Your task to perform on an android device: See recent photos Image 0: 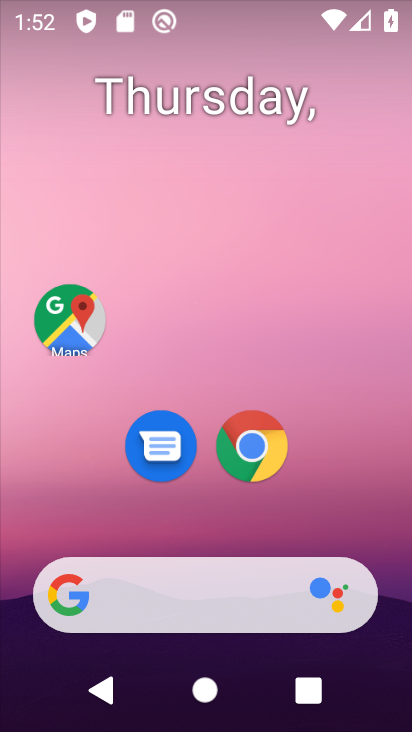
Step 0: drag from (294, 464) to (301, 175)
Your task to perform on an android device: See recent photos Image 1: 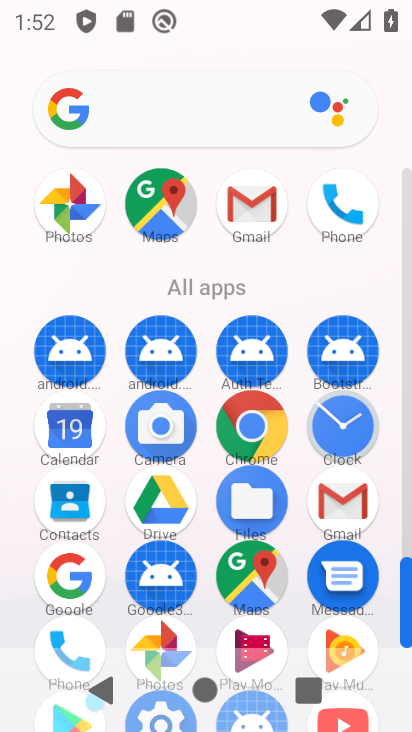
Step 1: click (153, 641)
Your task to perform on an android device: See recent photos Image 2: 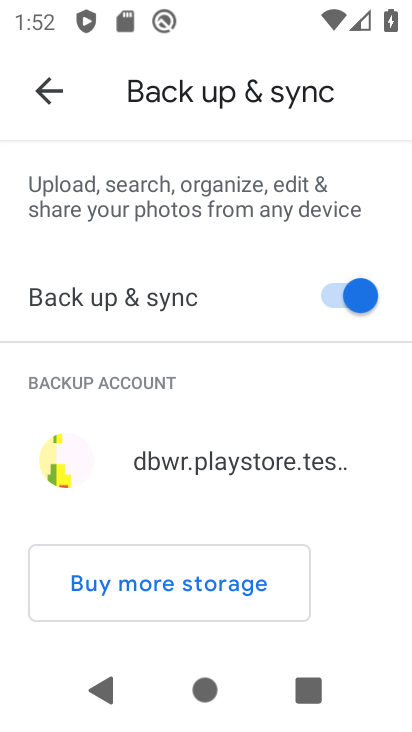
Step 2: drag from (194, 509) to (240, 205)
Your task to perform on an android device: See recent photos Image 3: 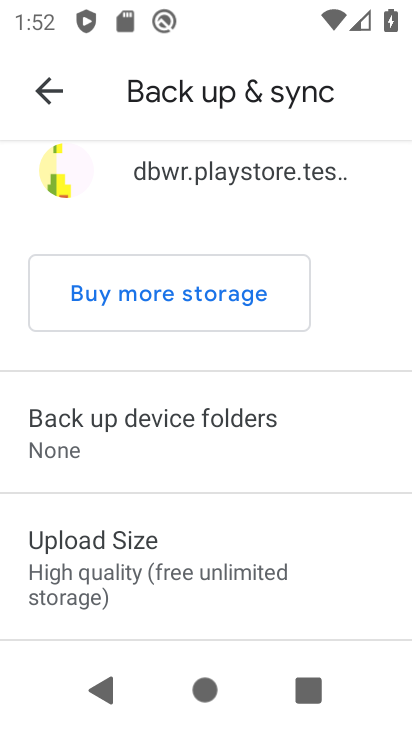
Step 3: click (56, 90)
Your task to perform on an android device: See recent photos Image 4: 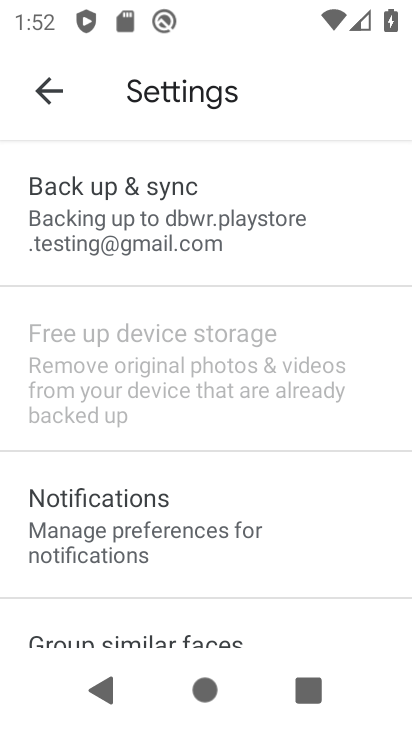
Step 4: click (51, 87)
Your task to perform on an android device: See recent photos Image 5: 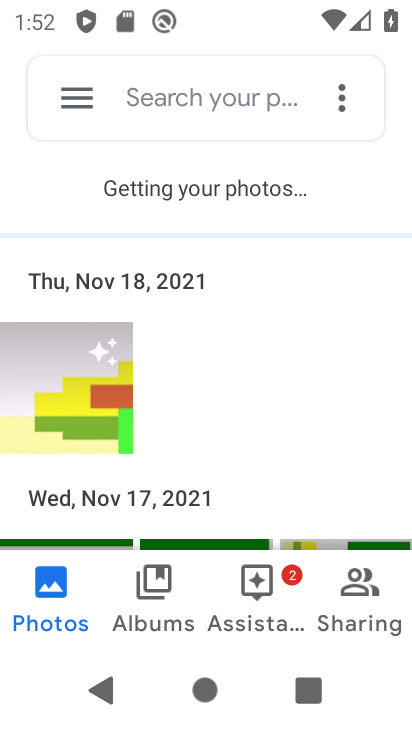
Step 5: task complete